Your task to perform on an android device: What is the recent news? Image 0: 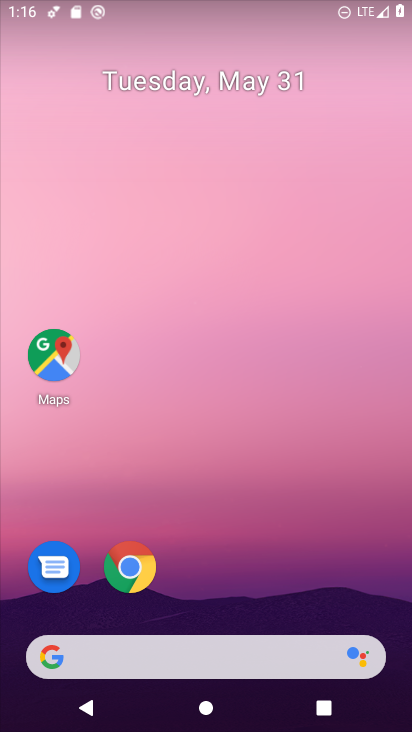
Step 0: drag from (214, 582) to (216, 199)
Your task to perform on an android device: What is the recent news? Image 1: 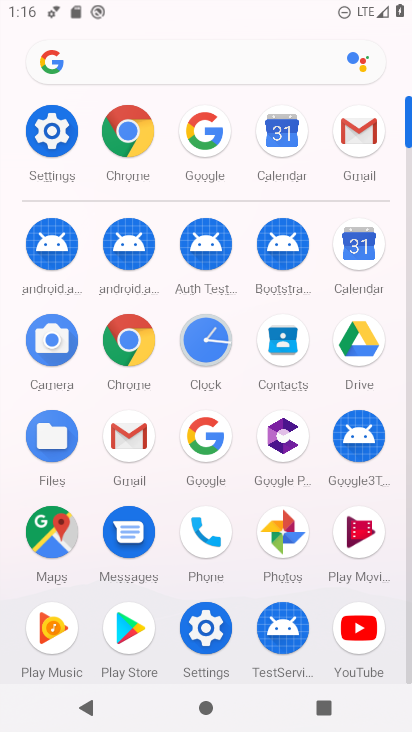
Step 1: click (215, 134)
Your task to perform on an android device: What is the recent news? Image 2: 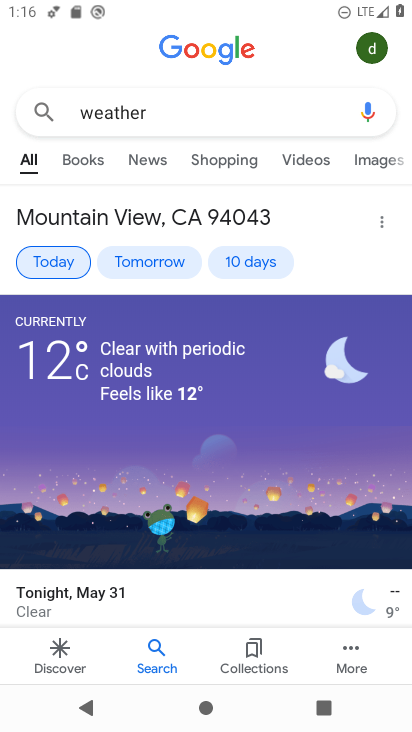
Step 2: click (186, 123)
Your task to perform on an android device: What is the recent news? Image 3: 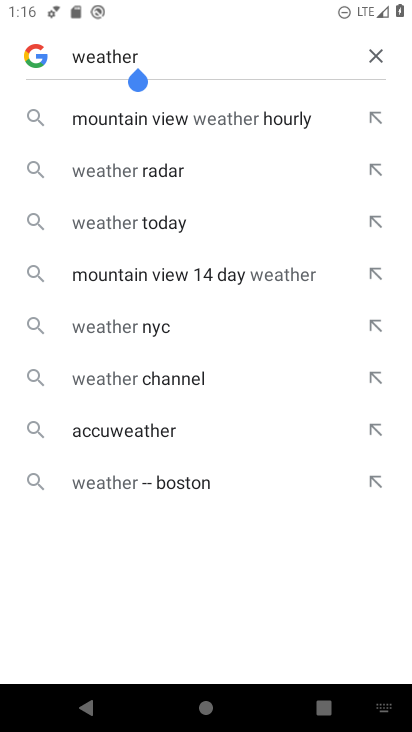
Step 3: click (379, 53)
Your task to perform on an android device: What is the recent news? Image 4: 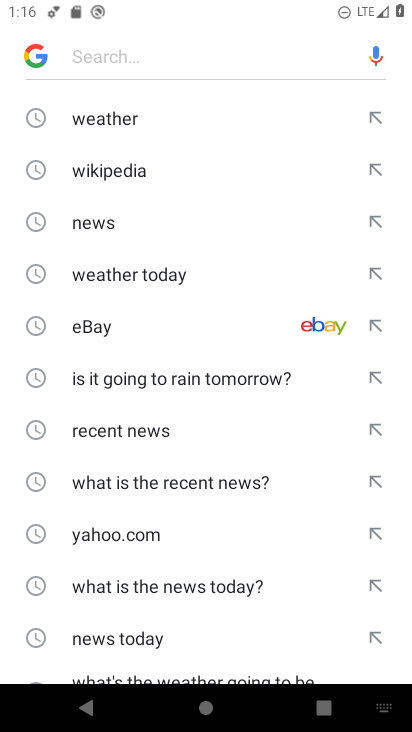
Step 4: click (120, 231)
Your task to perform on an android device: What is the recent news? Image 5: 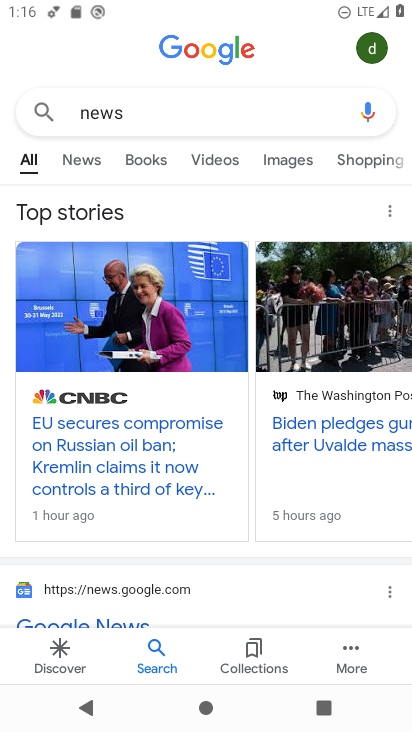
Step 5: click (97, 165)
Your task to perform on an android device: What is the recent news? Image 6: 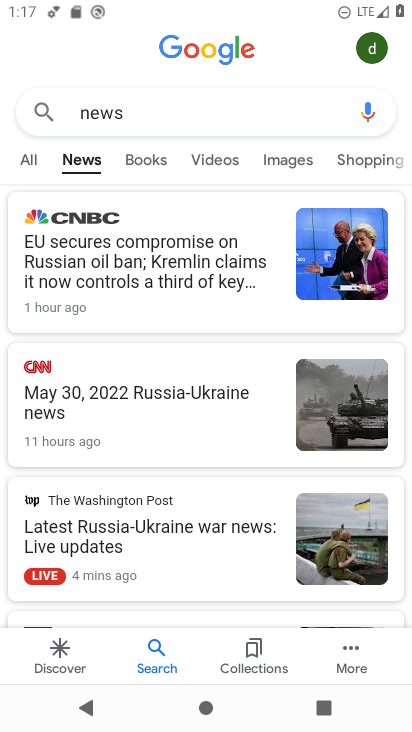
Step 6: task complete